Your task to perform on an android device: search for starred emails in the gmail app Image 0: 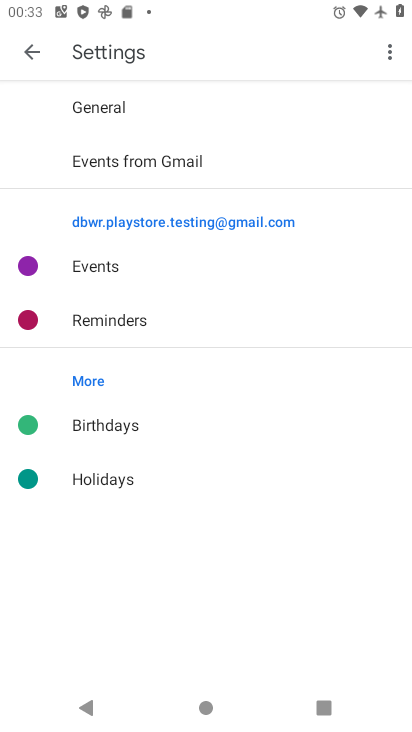
Step 0: press home button
Your task to perform on an android device: search for starred emails in the gmail app Image 1: 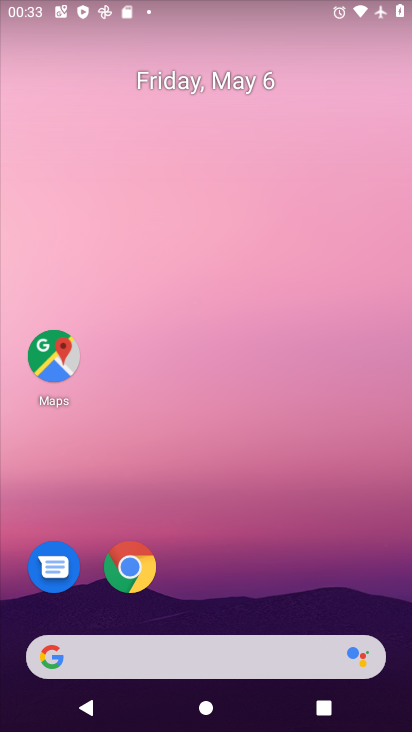
Step 1: drag from (207, 590) to (230, 127)
Your task to perform on an android device: search for starred emails in the gmail app Image 2: 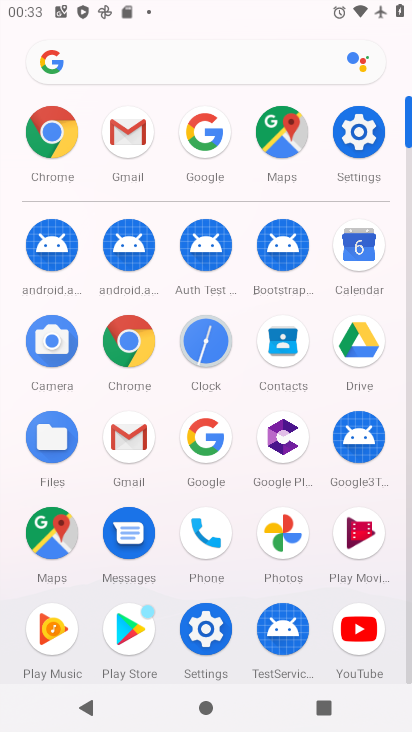
Step 2: click (133, 150)
Your task to perform on an android device: search for starred emails in the gmail app Image 3: 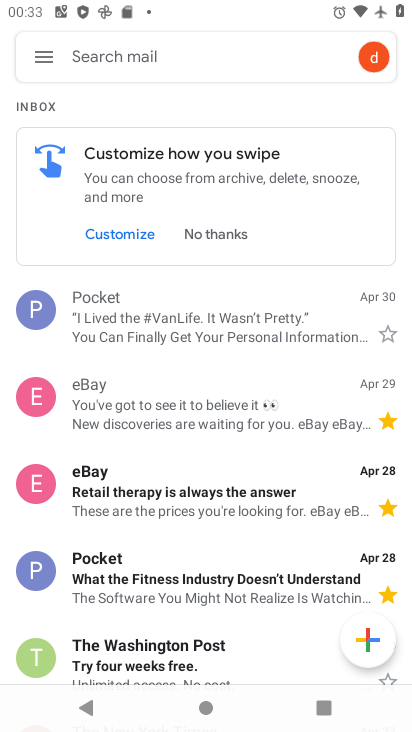
Step 3: click (55, 49)
Your task to perform on an android device: search for starred emails in the gmail app Image 4: 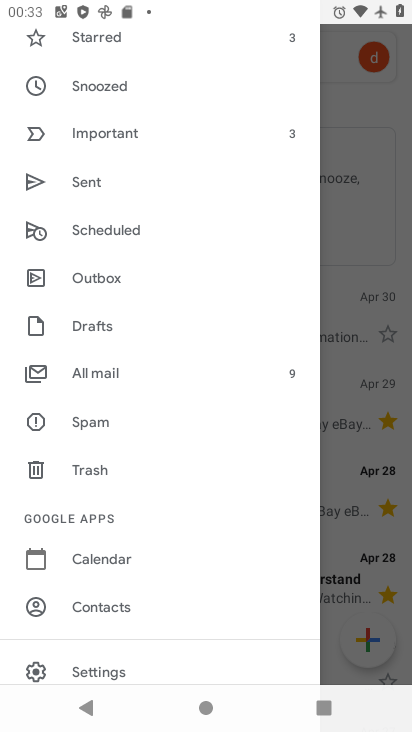
Step 4: click (111, 37)
Your task to perform on an android device: search for starred emails in the gmail app Image 5: 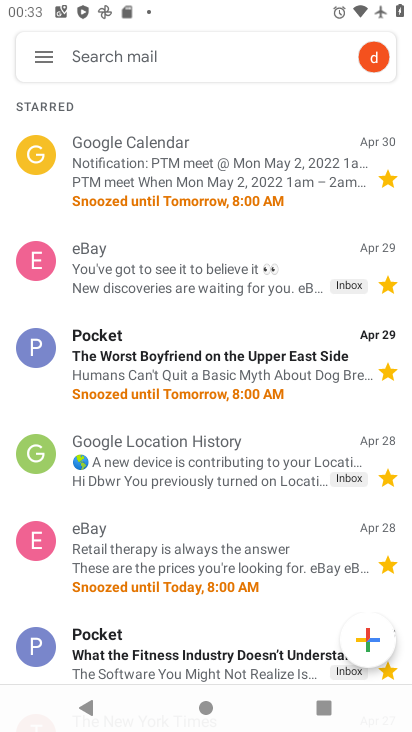
Step 5: task complete